Your task to perform on an android device: Open Google Chrome and click the shortcut for Amazon.com Image 0: 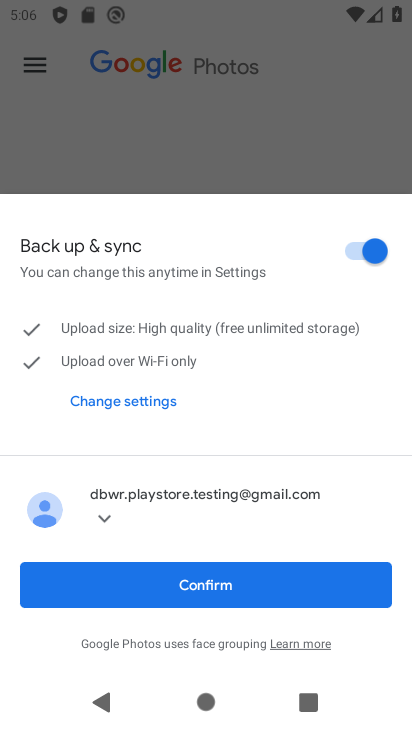
Step 0: press home button
Your task to perform on an android device: Open Google Chrome and click the shortcut for Amazon.com Image 1: 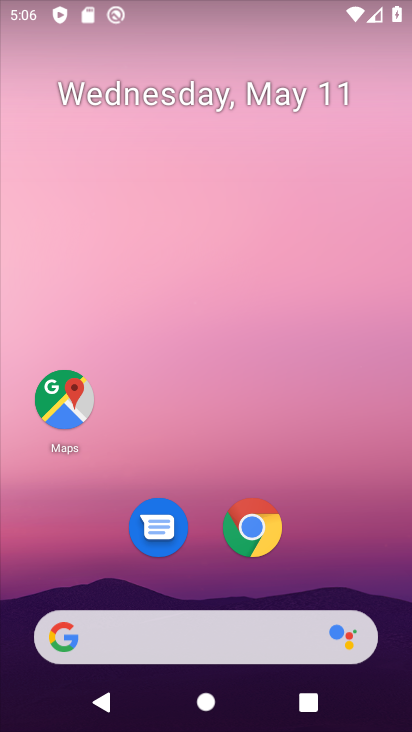
Step 1: click (254, 528)
Your task to perform on an android device: Open Google Chrome and click the shortcut for Amazon.com Image 2: 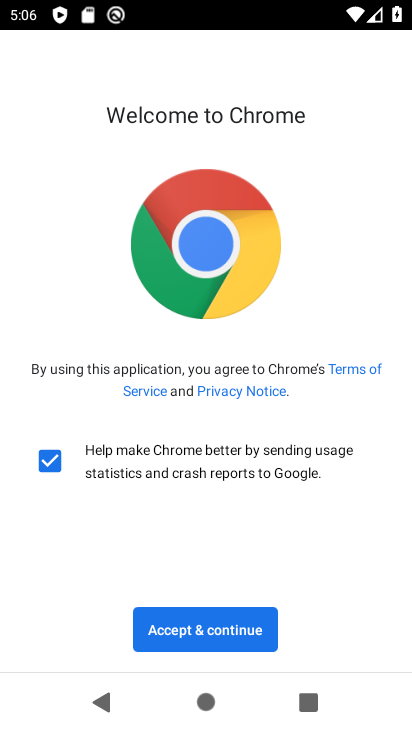
Step 2: click (170, 631)
Your task to perform on an android device: Open Google Chrome and click the shortcut for Amazon.com Image 3: 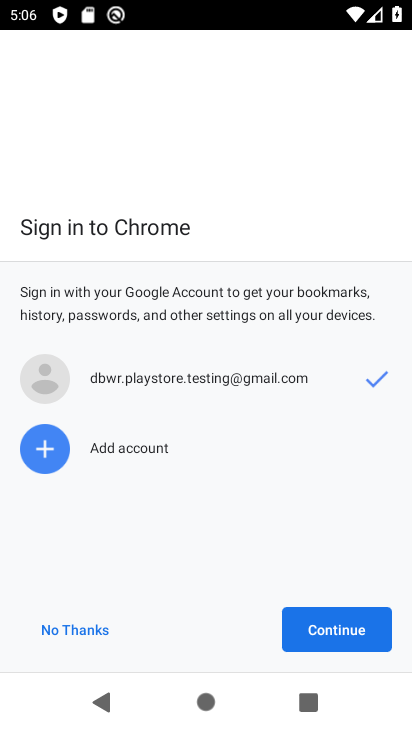
Step 3: click (313, 641)
Your task to perform on an android device: Open Google Chrome and click the shortcut for Amazon.com Image 4: 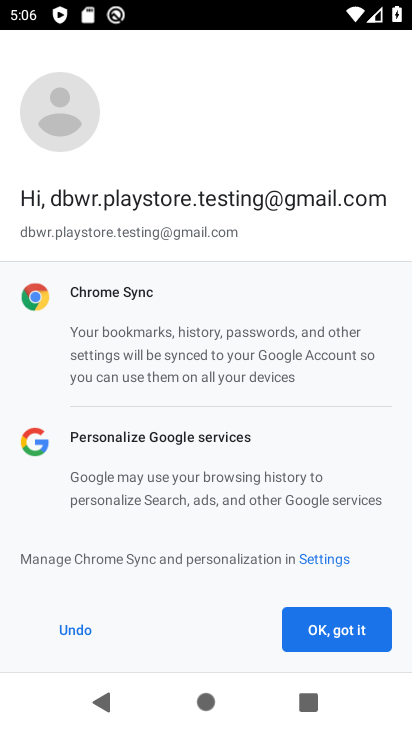
Step 4: click (313, 641)
Your task to perform on an android device: Open Google Chrome and click the shortcut for Amazon.com Image 5: 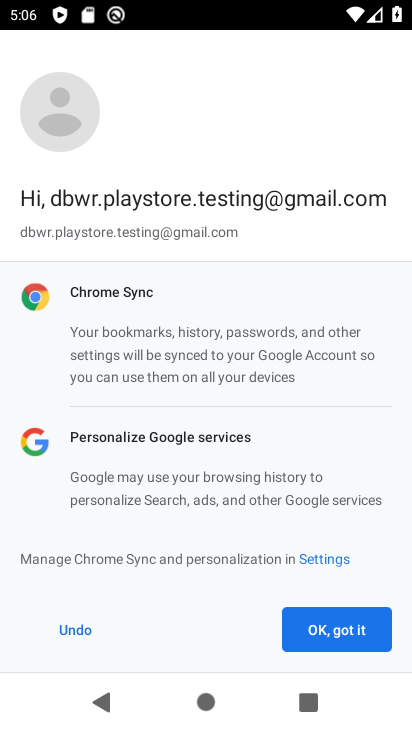
Step 5: click (313, 641)
Your task to perform on an android device: Open Google Chrome and click the shortcut for Amazon.com Image 6: 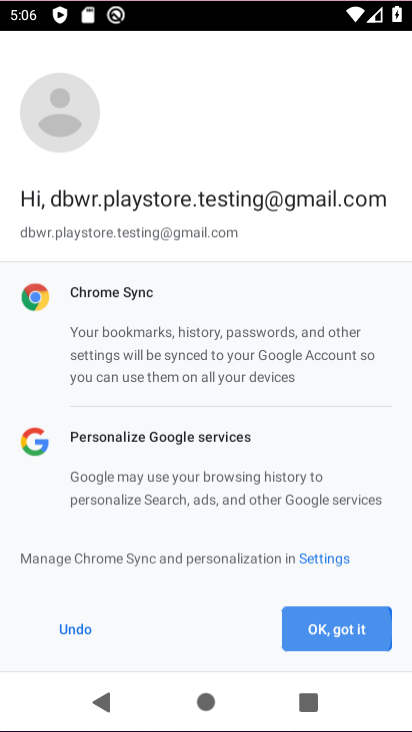
Step 6: click (313, 641)
Your task to perform on an android device: Open Google Chrome and click the shortcut for Amazon.com Image 7: 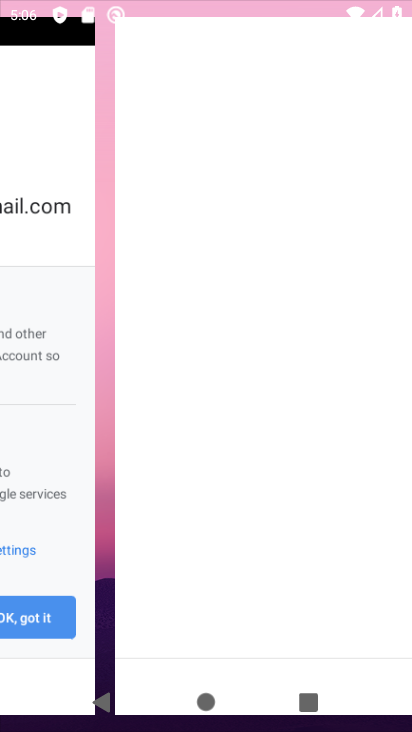
Step 7: click (311, 641)
Your task to perform on an android device: Open Google Chrome and click the shortcut for Amazon.com Image 8: 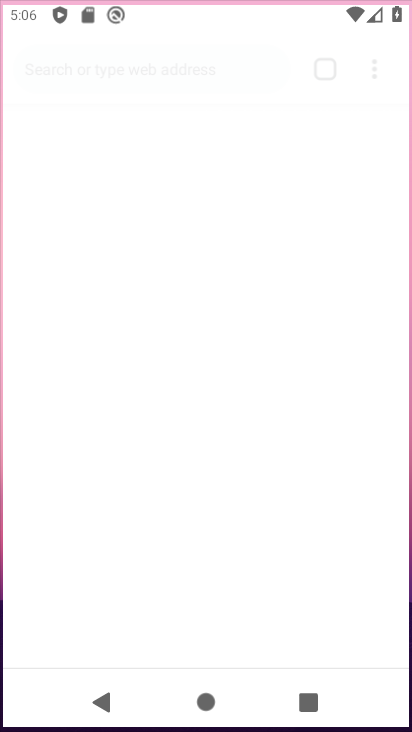
Step 8: click (354, 628)
Your task to perform on an android device: Open Google Chrome and click the shortcut for Amazon.com Image 9: 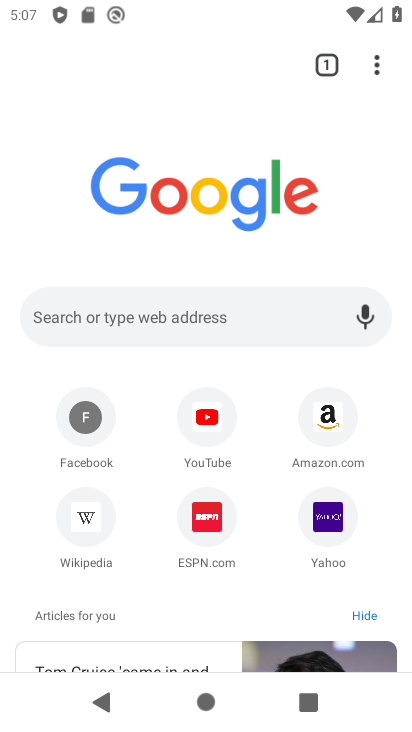
Step 9: click (305, 416)
Your task to perform on an android device: Open Google Chrome and click the shortcut for Amazon.com Image 10: 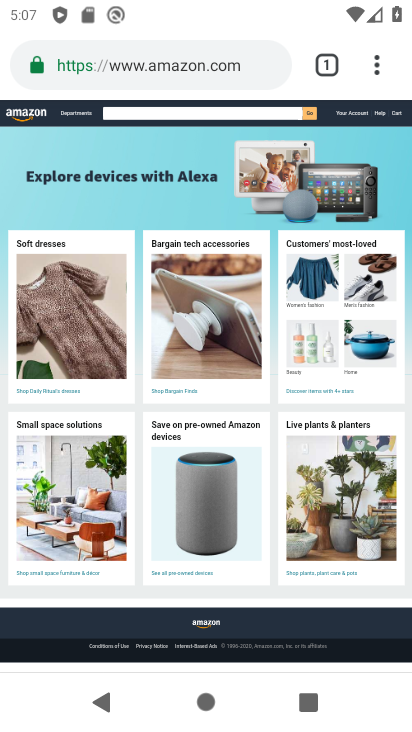
Step 10: task complete